Your task to perform on an android device: open app "DuckDuckGo Privacy Browser" (install if not already installed), go to login, and select forgot password Image 0: 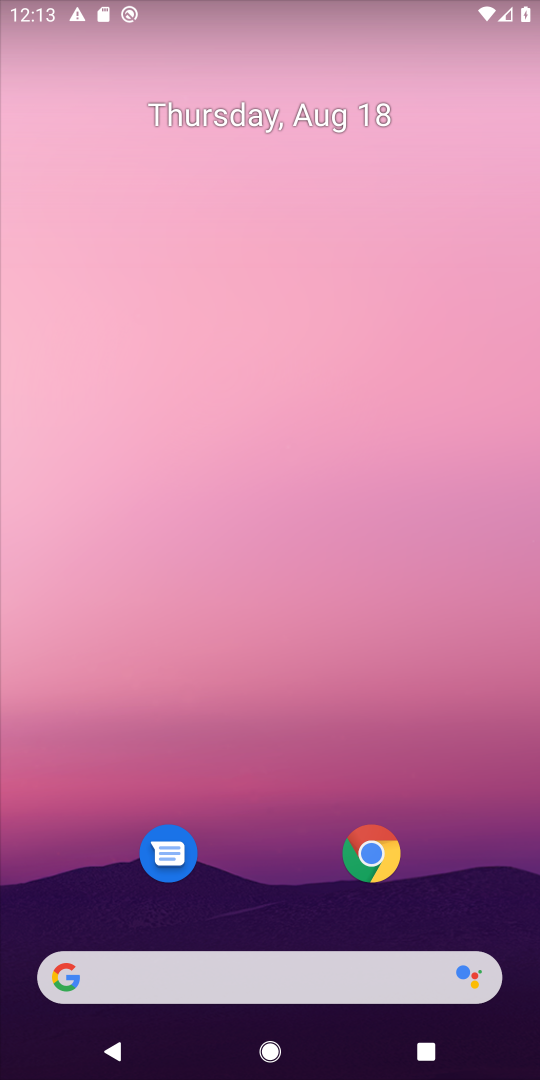
Step 0: drag from (372, 951) to (526, 271)
Your task to perform on an android device: open app "DuckDuckGo Privacy Browser" (install if not already installed), go to login, and select forgot password Image 1: 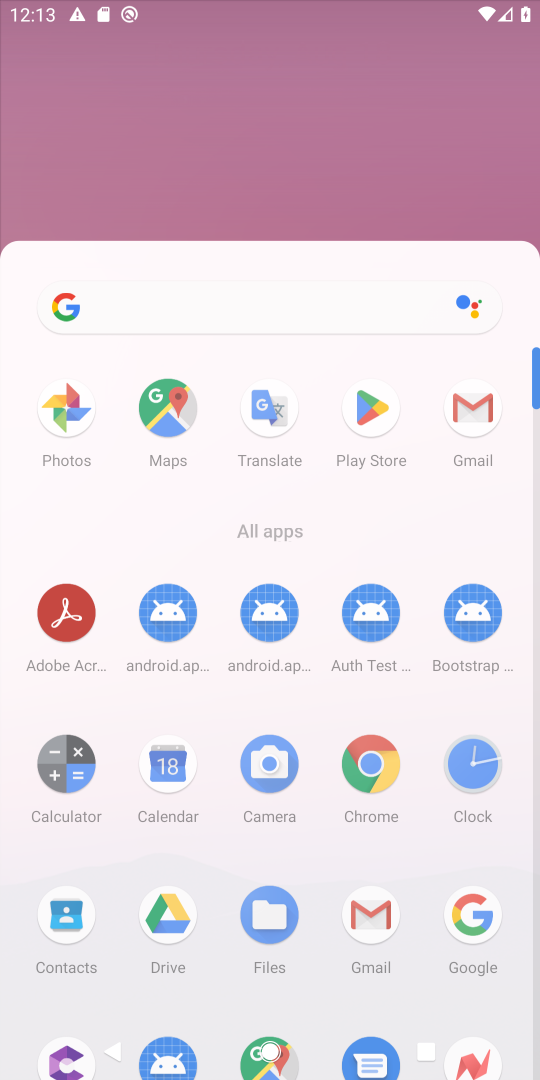
Step 1: drag from (332, 783) to (421, 356)
Your task to perform on an android device: open app "DuckDuckGo Privacy Browser" (install if not already installed), go to login, and select forgot password Image 2: 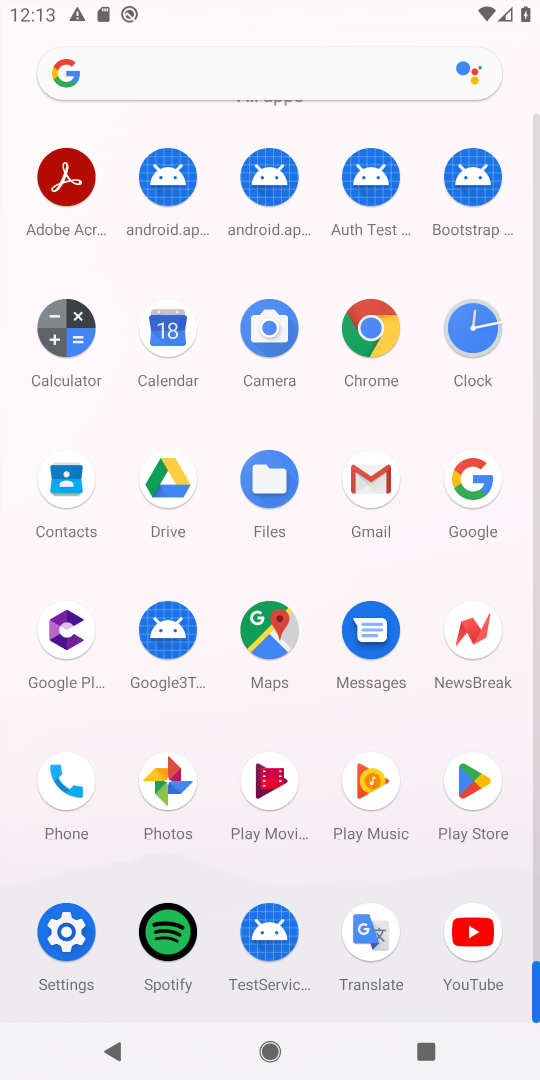
Step 2: drag from (274, 843) to (335, 404)
Your task to perform on an android device: open app "DuckDuckGo Privacy Browser" (install if not already installed), go to login, and select forgot password Image 3: 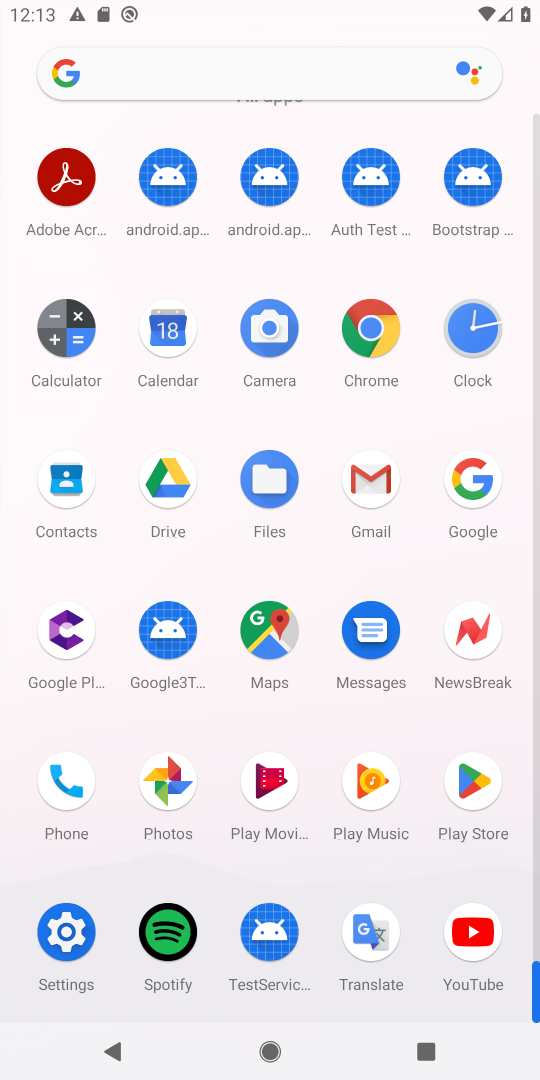
Step 3: click (473, 824)
Your task to perform on an android device: open app "DuckDuckGo Privacy Browser" (install if not already installed), go to login, and select forgot password Image 4: 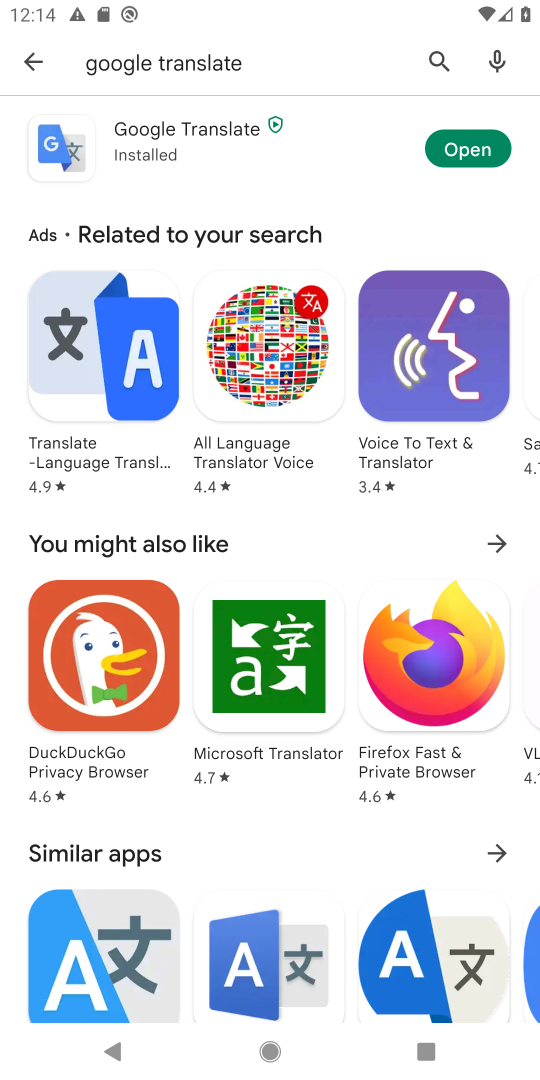
Step 4: click (40, 67)
Your task to perform on an android device: open app "DuckDuckGo Privacy Browser" (install if not already installed), go to login, and select forgot password Image 5: 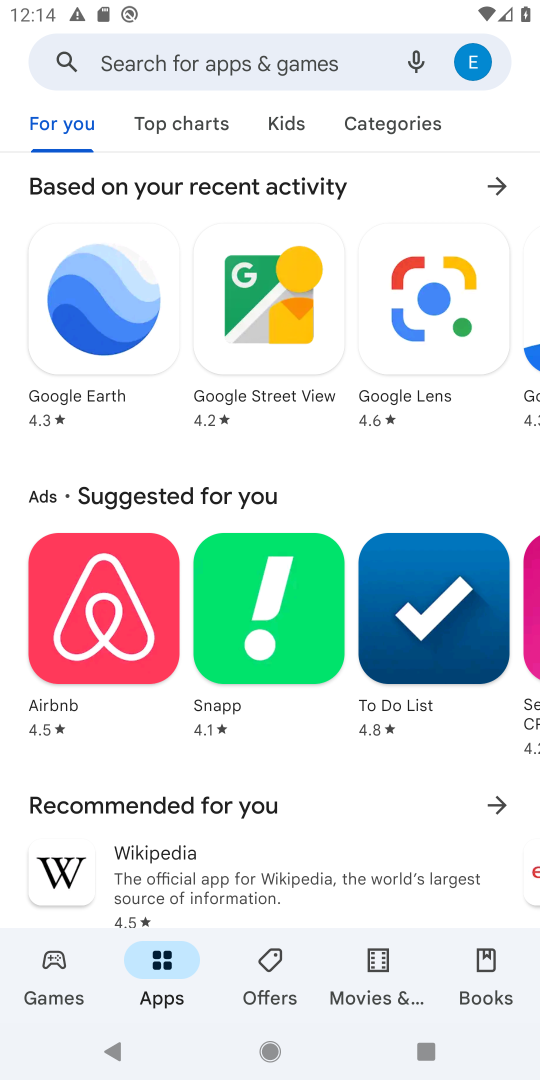
Step 5: click (196, 73)
Your task to perform on an android device: open app "DuckDuckGo Privacy Browser" (install if not already installed), go to login, and select forgot password Image 6: 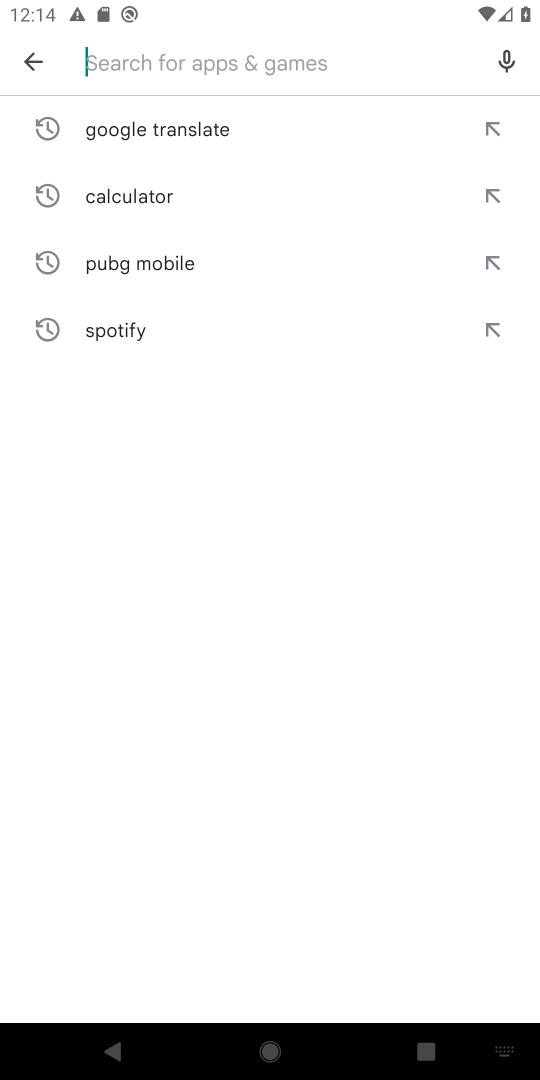
Step 6: type "DuckDuckGo Privacy Browser"
Your task to perform on an android device: open app "DuckDuckGo Privacy Browser" (install if not already installed), go to login, and select forgot password Image 7: 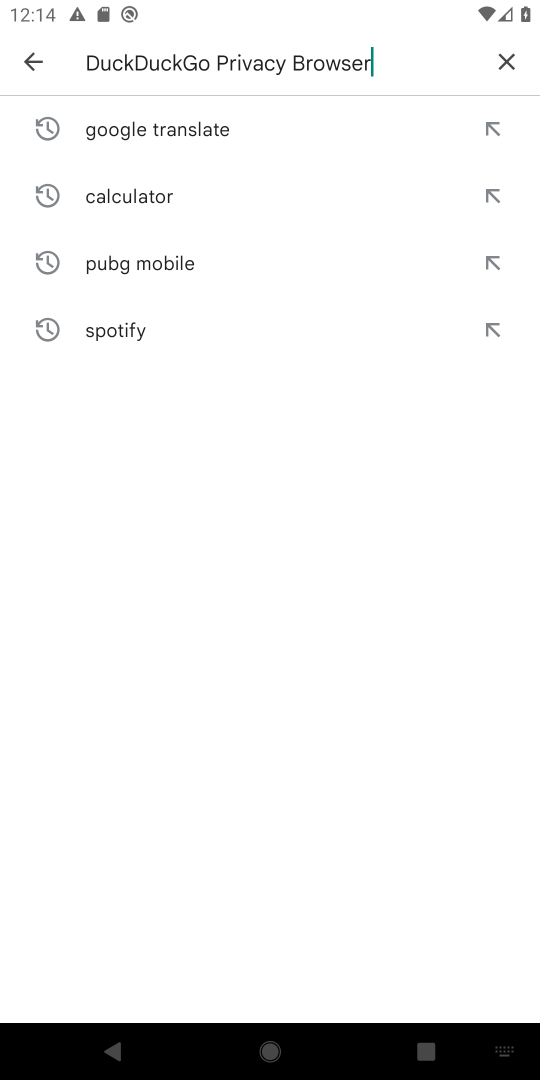
Step 7: type ""
Your task to perform on an android device: open app "DuckDuckGo Privacy Browser" (install if not already installed), go to login, and select forgot password Image 8: 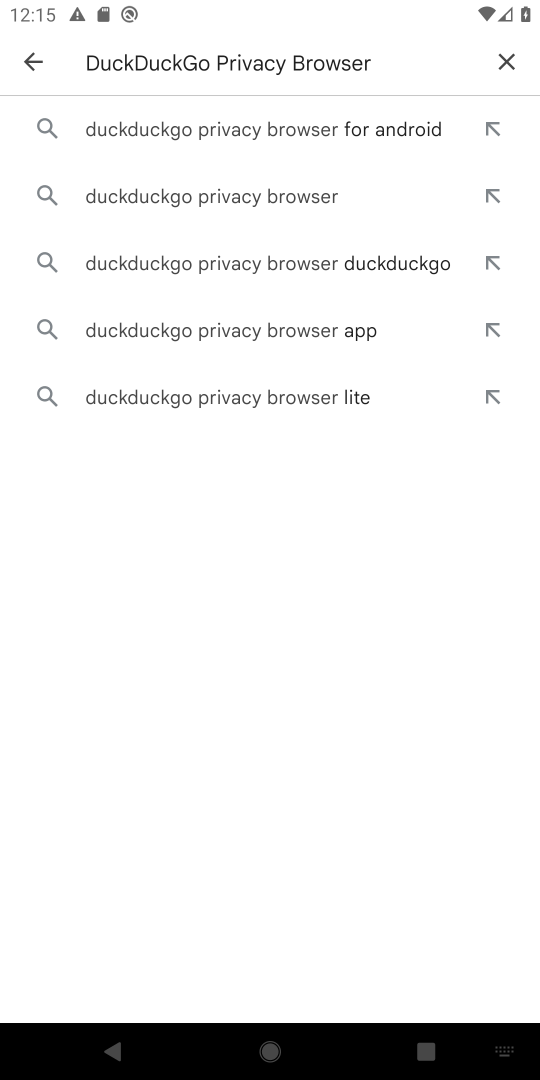
Step 8: click (324, 189)
Your task to perform on an android device: open app "DuckDuckGo Privacy Browser" (install if not already installed), go to login, and select forgot password Image 9: 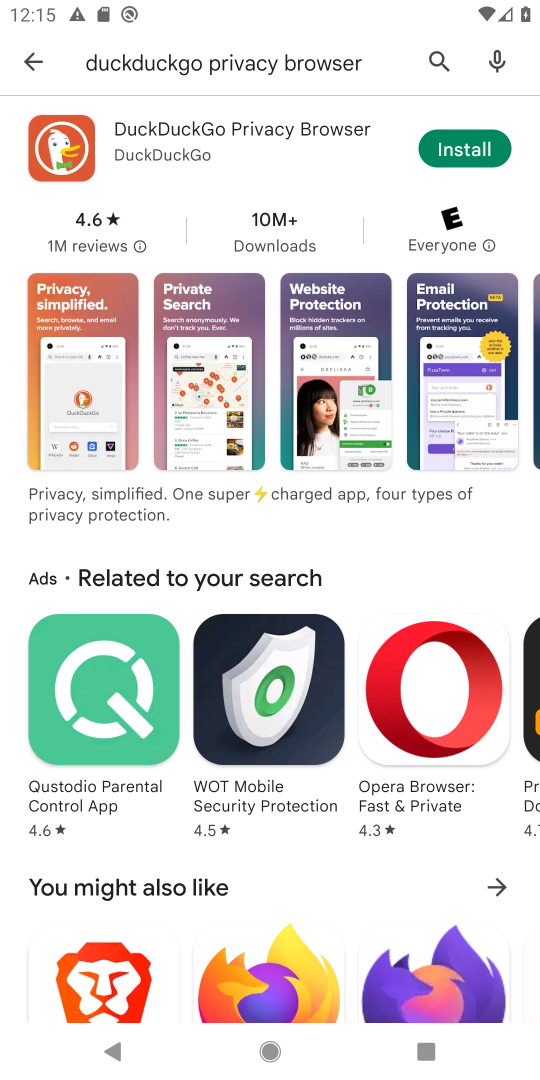
Step 9: click (471, 147)
Your task to perform on an android device: open app "DuckDuckGo Privacy Browser" (install if not already installed), go to login, and select forgot password Image 10: 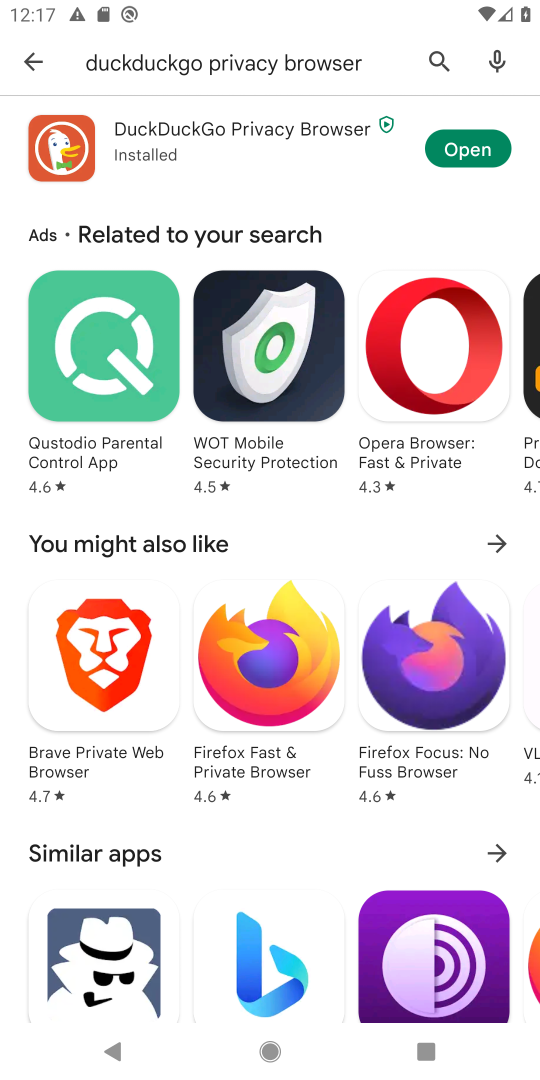
Step 10: click (485, 149)
Your task to perform on an android device: open app "DuckDuckGo Privacy Browser" (install if not already installed), go to login, and select forgot password Image 11: 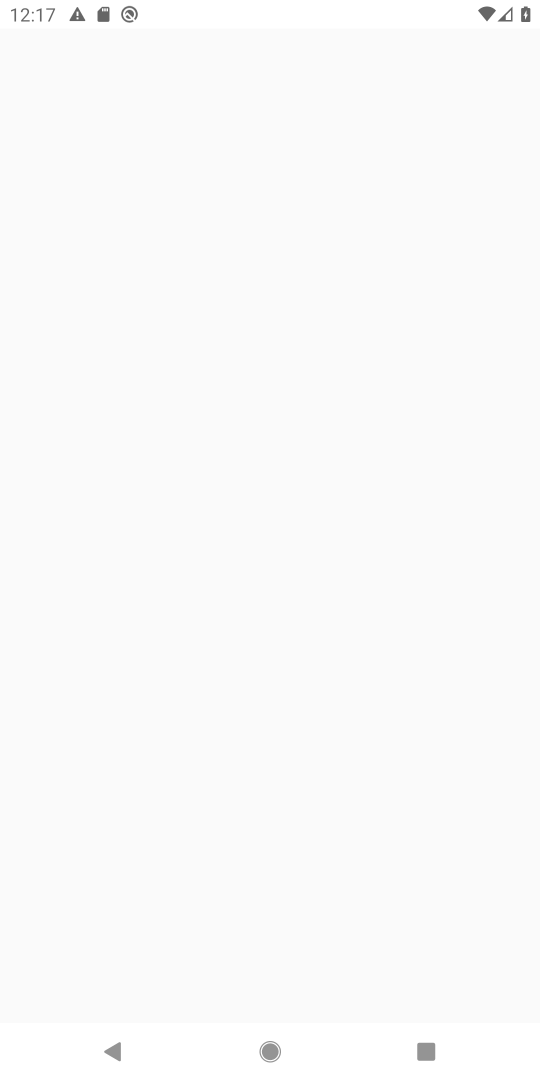
Step 11: task complete